Your task to perform on an android device: Open Maps and search for coffee Image 0: 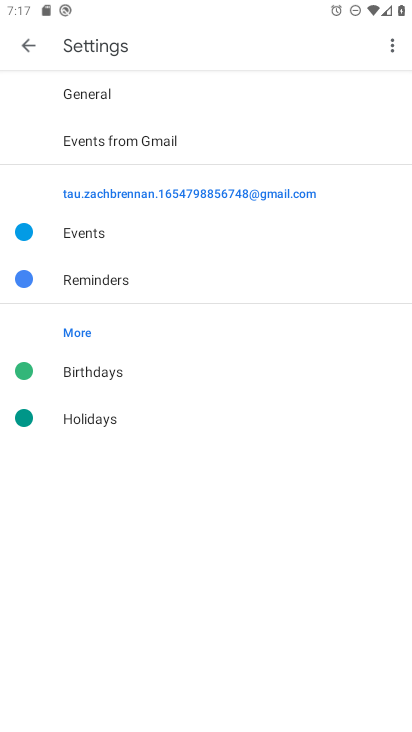
Step 0: press back button
Your task to perform on an android device: Open Maps and search for coffee Image 1: 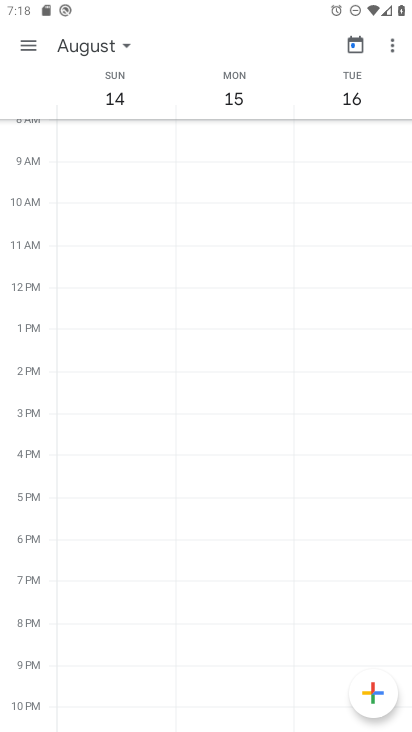
Step 1: press home button
Your task to perform on an android device: Open Maps and search for coffee Image 2: 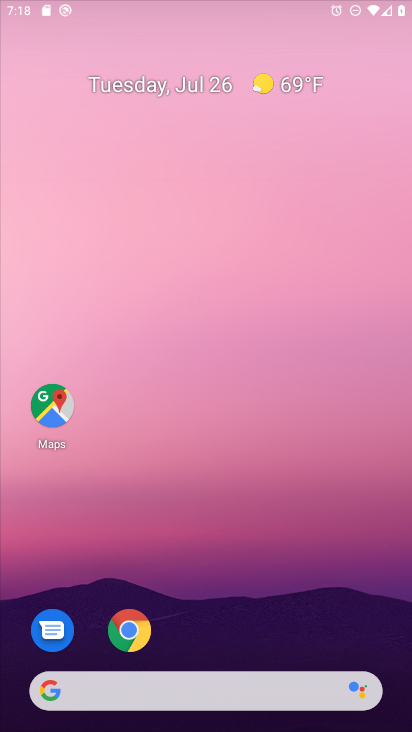
Step 2: drag from (265, 524) to (284, 53)
Your task to perform on an android device: Open Maps and search for coffee Image 3: 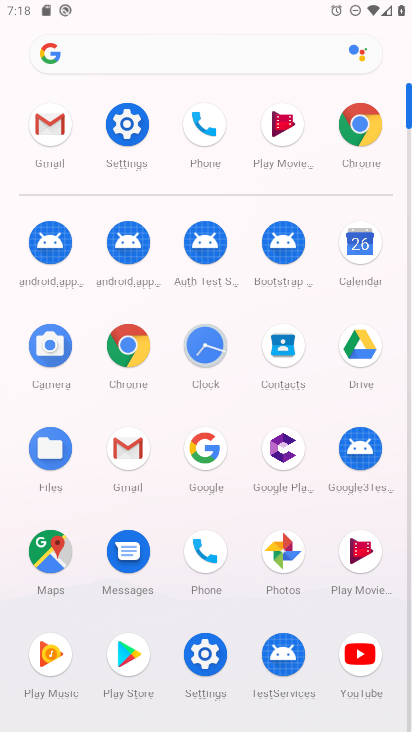
Step 3: click (42, 568)
Your task to perform on an android device: Open Maps and search for coffee Image 4: 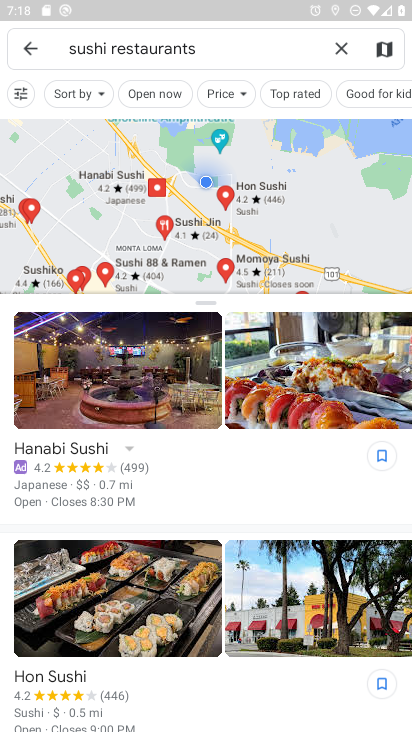
Step 4: click (329, 52)
Your task to perform on an android device: Open Maps and search for coffee Image 5: 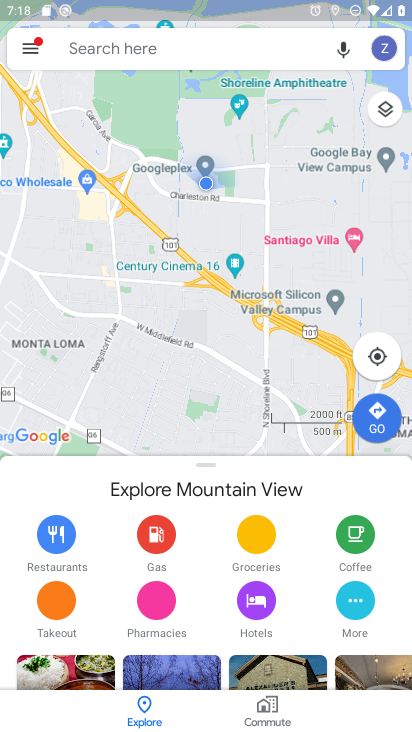
Step 5: click (262, 47)
Your task to perform on an android device: Open Maps and search for coffee Image 6: 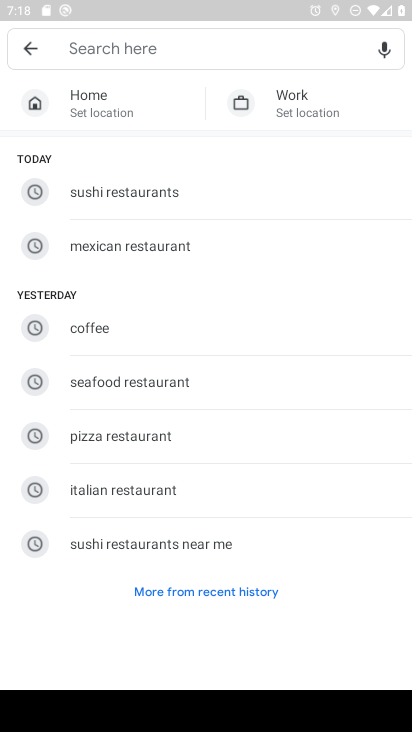
Step 6: click (190, 336)
Your task to perform on an android device: Open Maps and search for coffee Image 7: 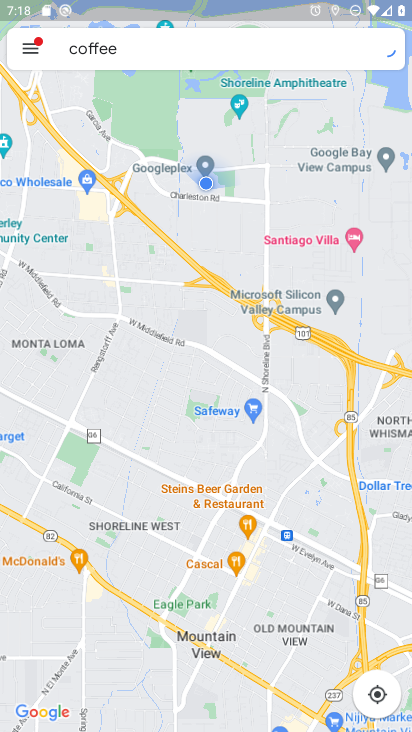
Step 7: task complete